Your task to perform on an android device: delete the emails in spam in the gmail app Image 0: 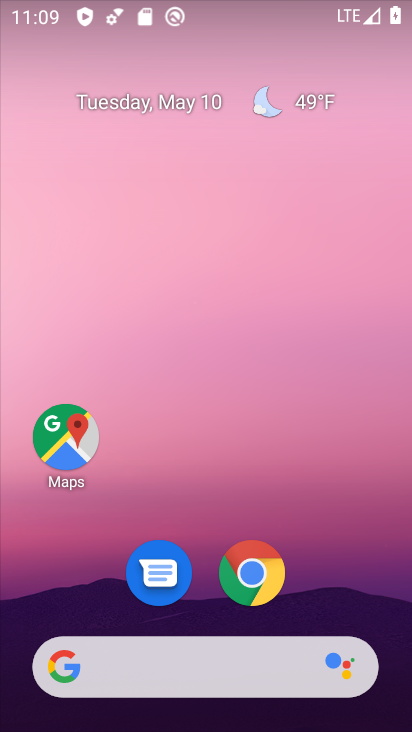
Step 0: drag from (151, 654) to (295, 217)
Your task to perform on an android device: delete the emails in spam in the gmail app Image 1: 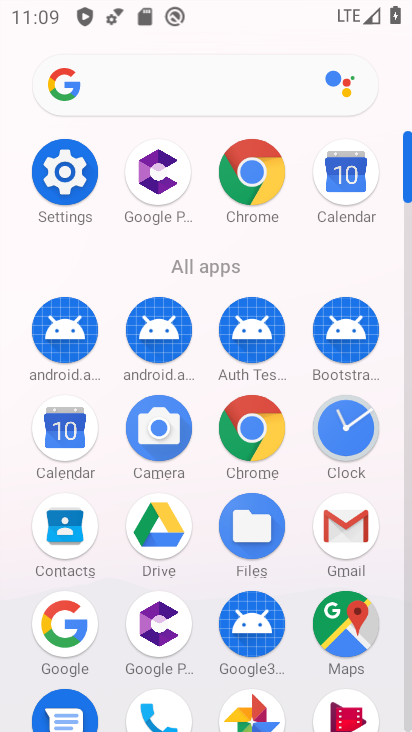
Step 1: click (345, 533)
Your task to perform on an android device: delete the emails in spam in the gmail app Image 2: 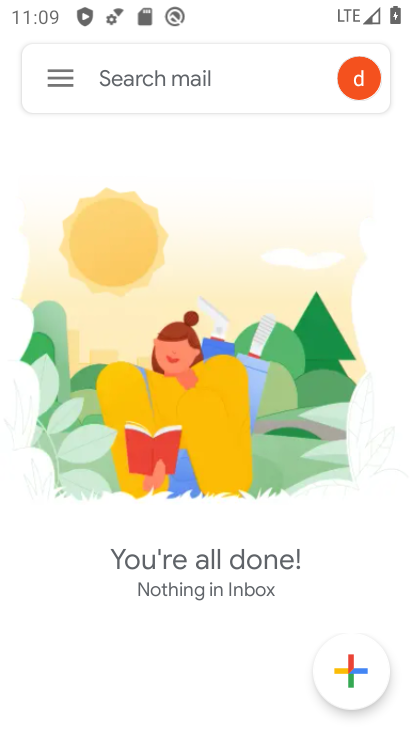
Step 2: click (49, 79)
Your task to perform on an android device: delete the emails in spam in the gmail app Image 3: 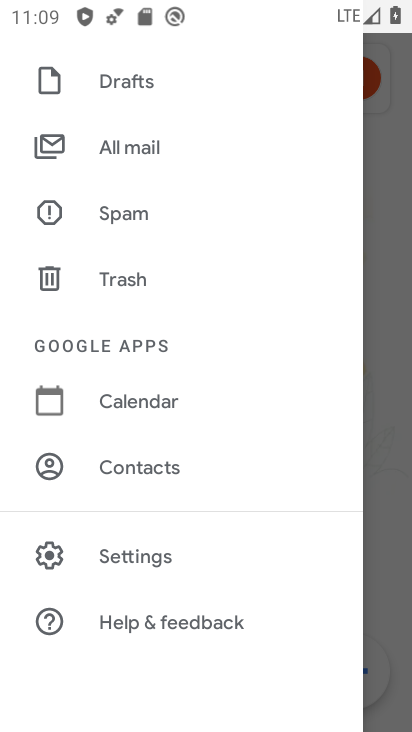
Step 3: click (135, 216)
Your task to perform on an android device: delete the emails in spam in the gmail app Image 4: 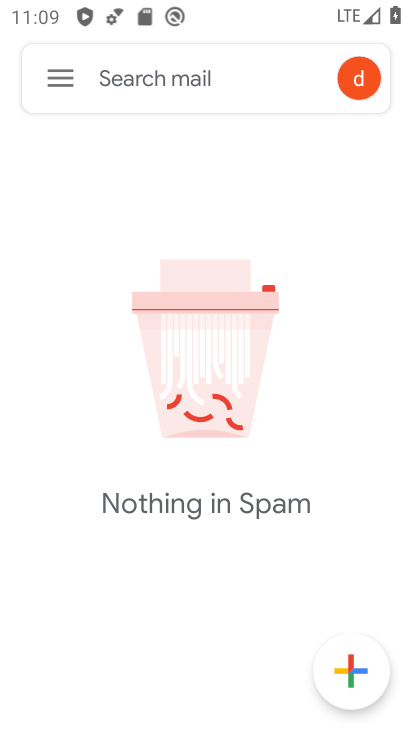
Step 4: task complete